Your task to perform on an android device: How much does a 2 bedroom apartment rent for in Houston? Image 0: 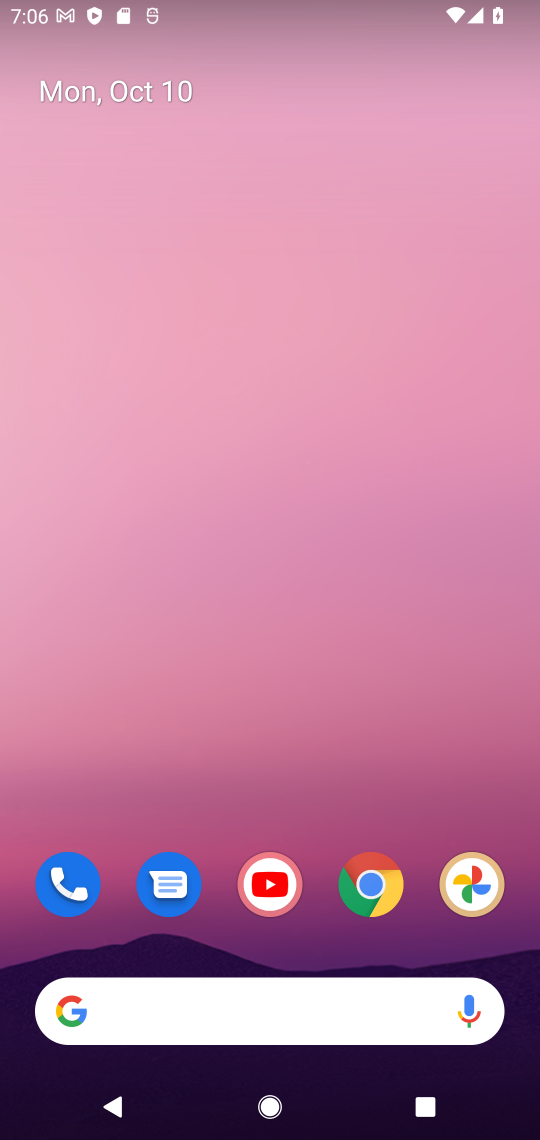
Step 0: click (358, 894)
Your task to perform on an android device: How much does a 2 bedroom apartment rent for in Houston? Image 1: 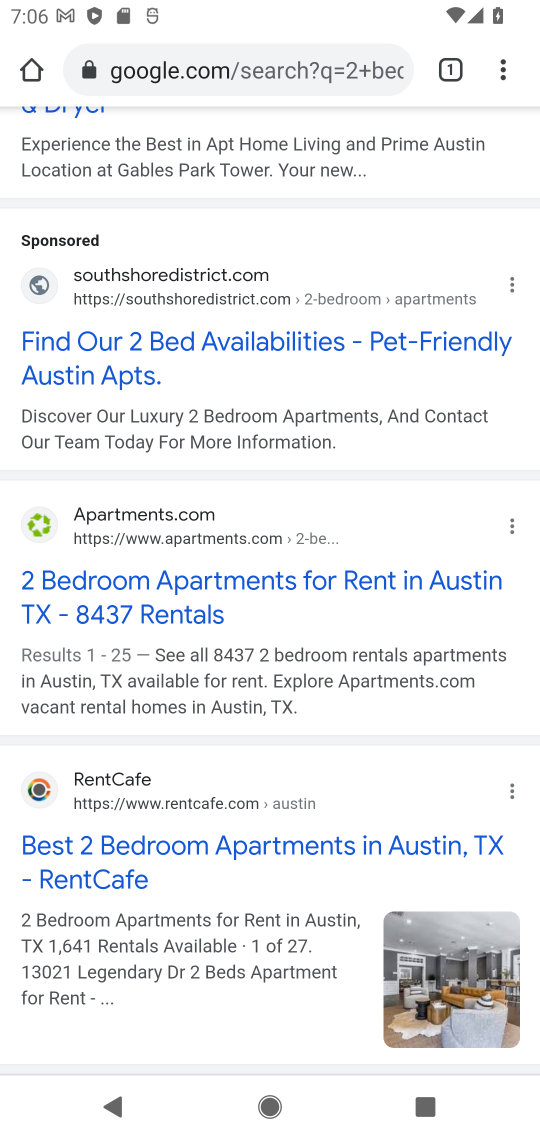
Step 1: click (294, 83)
Your task to perform on an android device: How much does a 2 bedroom apartment rent for in Houston? Image 2: 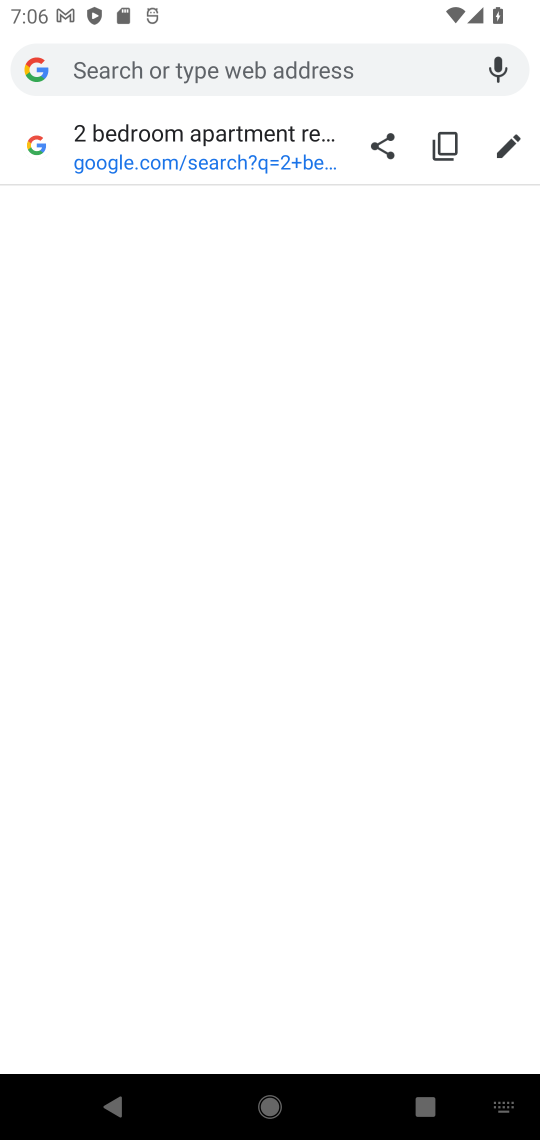
Step 2: type "2 bedroom apartment rent for in Houston?"
Your task to perform on an android device: How much does a 2 bedroom apartment rent for in Houston? Image 3: 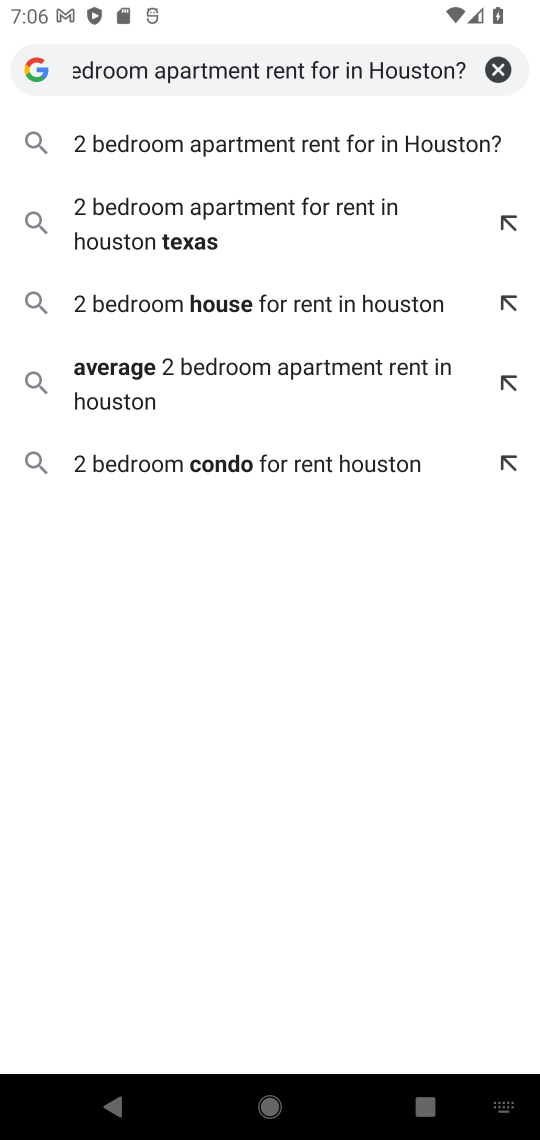
Step 3: click (329, 139)
Your task to perform on an android device: How much does a 2 bedroom apartment rent for in Houston? Image 4: 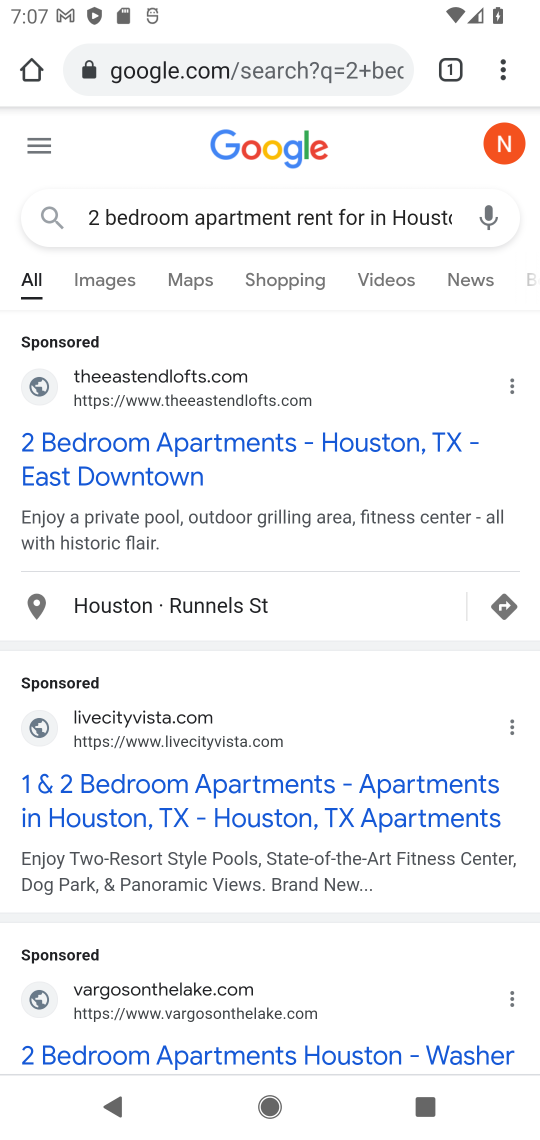
Step 4: drag from (408, 734) to (227, 469)
Your task to perform on an android device: How much does a 2 bedroom apartment rent for in Houston? Image 5: 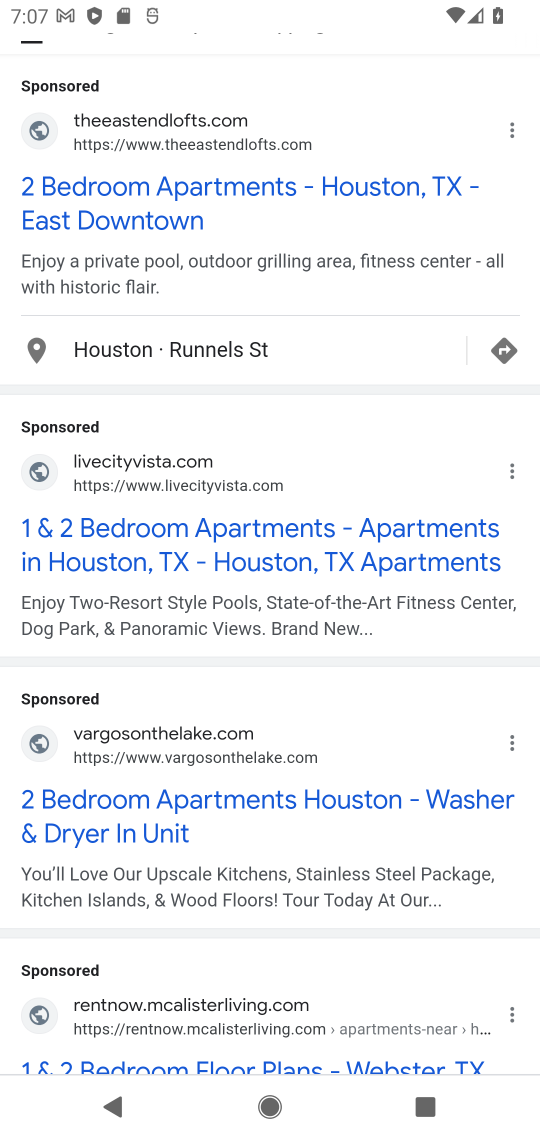
Step 5: drag from (439, 947) to (312, 585)
Your task to perform on an android device: How much does a 2 bedroom apartment rent for in Houston? Image 6: 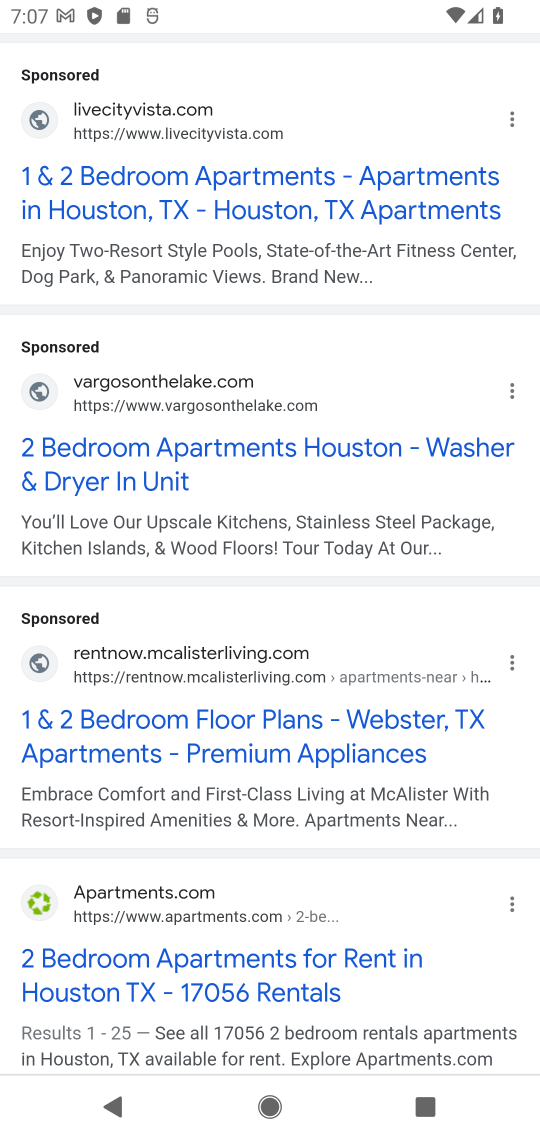
Step 6: drag from (442, 870) to (342, 514)
Your task to perform on an android device: How much does a 2 bedroom apartment rent for in Houston? Image 7: 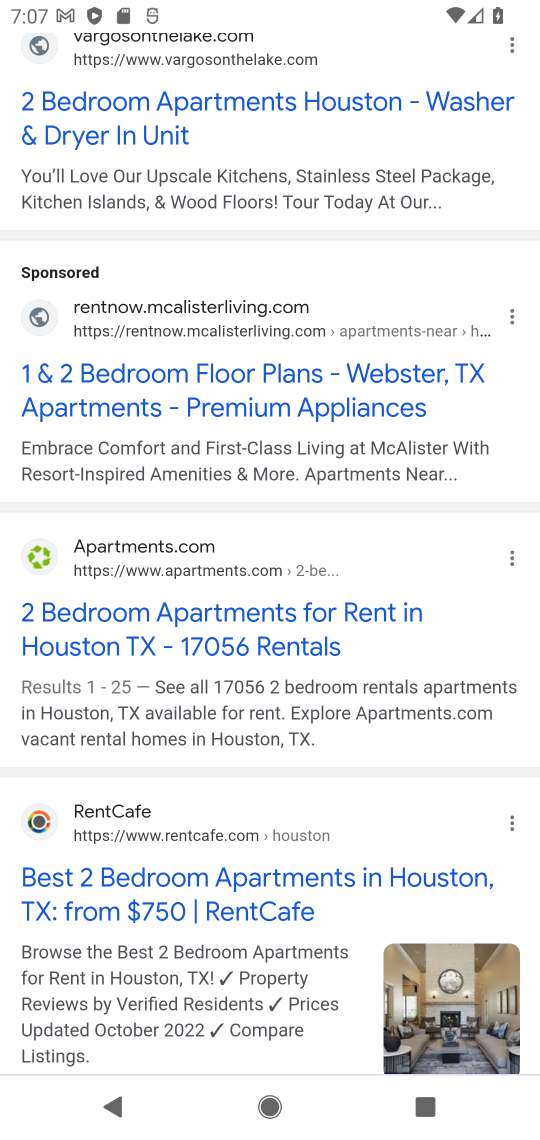
Step 7: click (260, 618)
Your task to perform on an android device: How much does a 2 bedroom apartment rent for in Houston? Image 8: 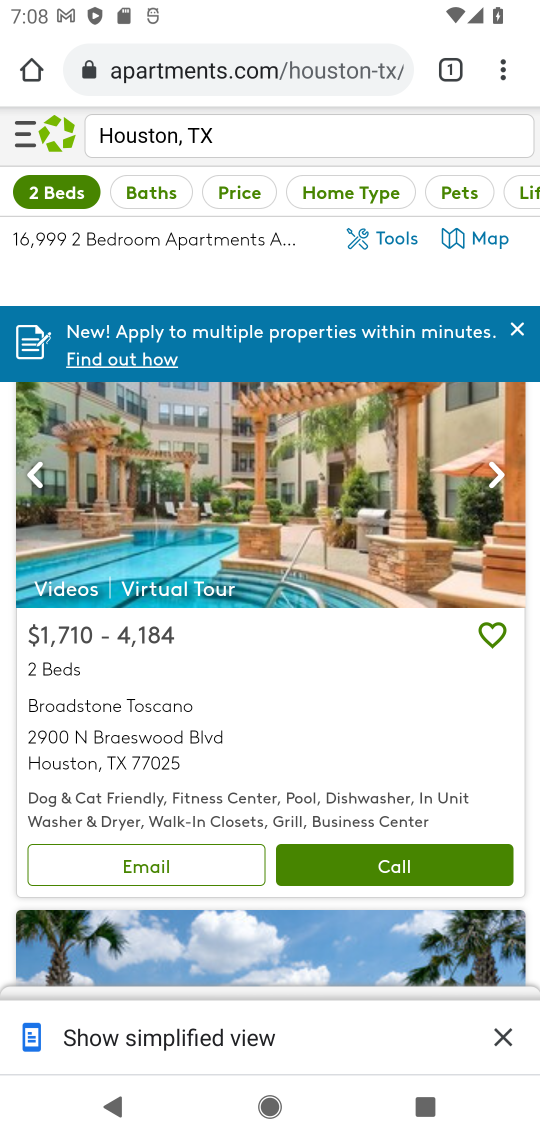
Step 8: task complete